Your task to perform on an android device: toggle airplane mode Image 0: 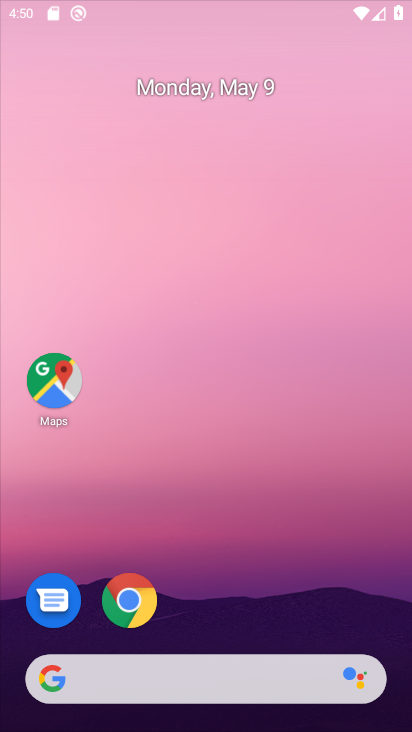
Step 0: drag from (207, 671) to (241, 71)
Your task to perform on an android device: toggle airplane mode Image 1: 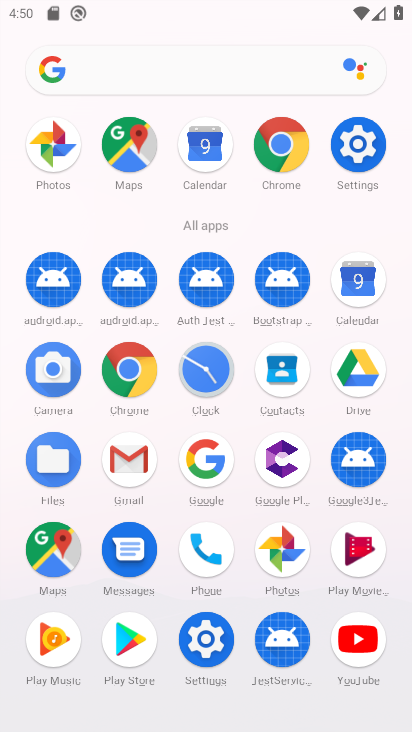
Step 1: drag from (274, 0) to (274, 667)
Your task to perform on an android device: toggle airplane mode Image 2: 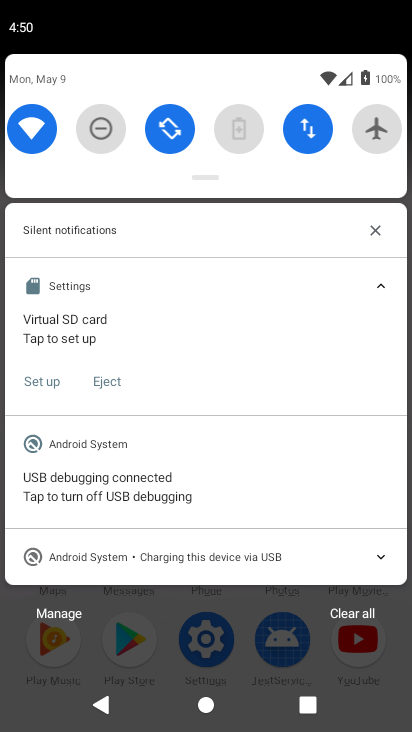
Step 2: drag from (190, 174) to (159, 633)
Your task to perform on an android device: toggle airplane mode Image 3: 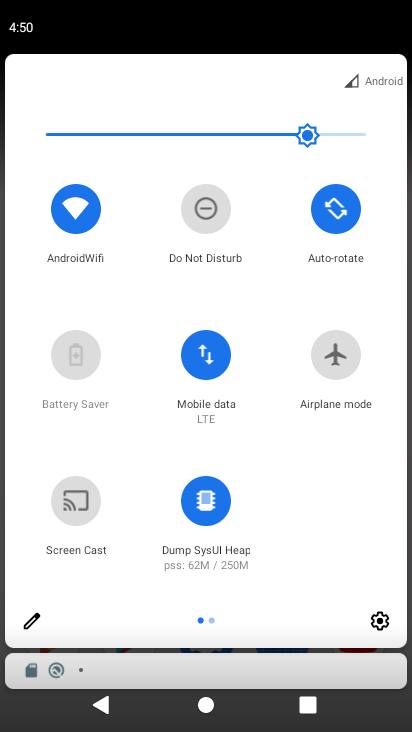
Step 3: click (350, 359)
Your task to perform on an android device: toggle airplane mode Image 4: 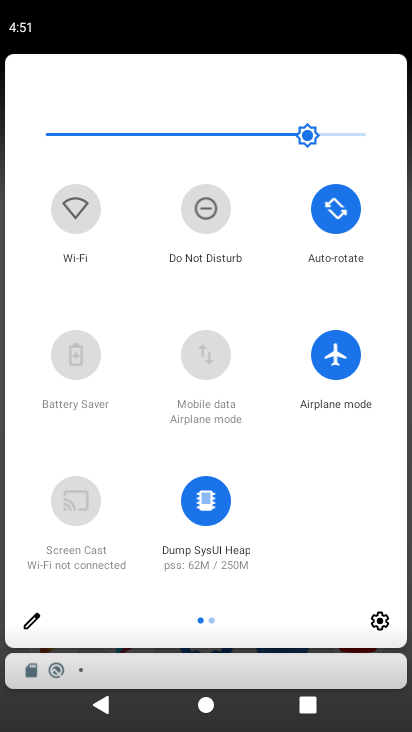
Step 4: task complete